Your task to perform on an android device: Go to display settings Image 0: 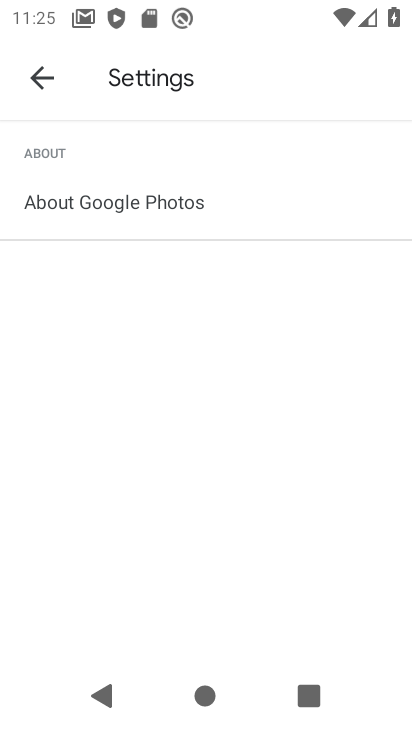
Step 0: press home button
Your task to perform on an android device: Go to display settings Image 1: 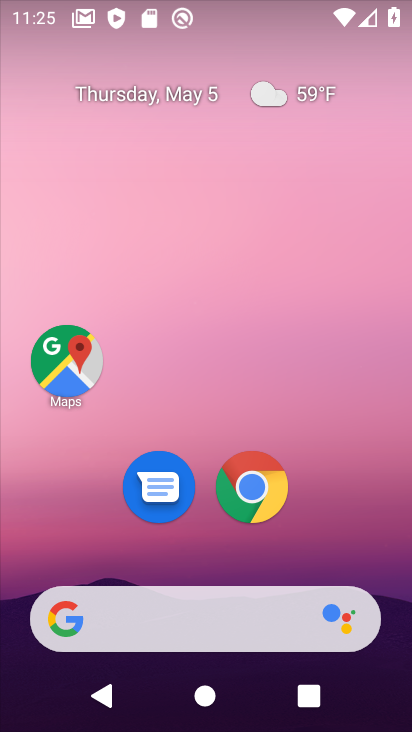
Step 1: drag from (281, 535) to (149, 130)
Your task to perform on an android device: Go to display settings Image 2: 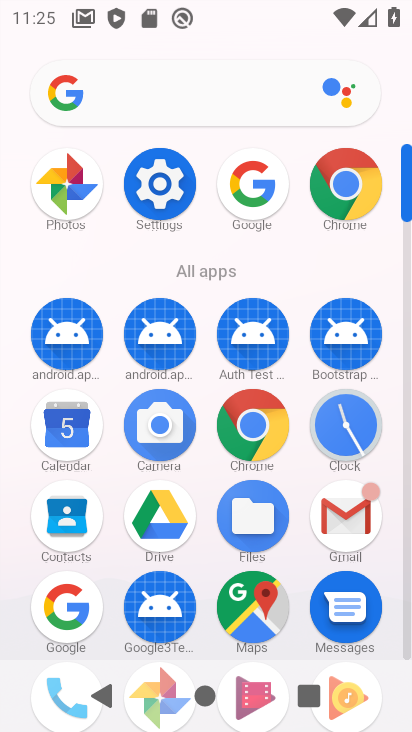
Step 2: click (158, 181)
Your task to perform on an android device: Go to display settings Image 3: 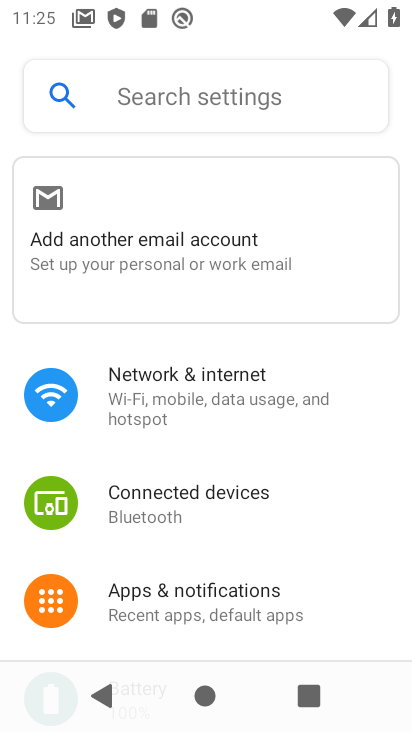
Step 3: drag from (319, 561) to (263, 174)
Your task to perform on an android device: Go to display settings Image 4: 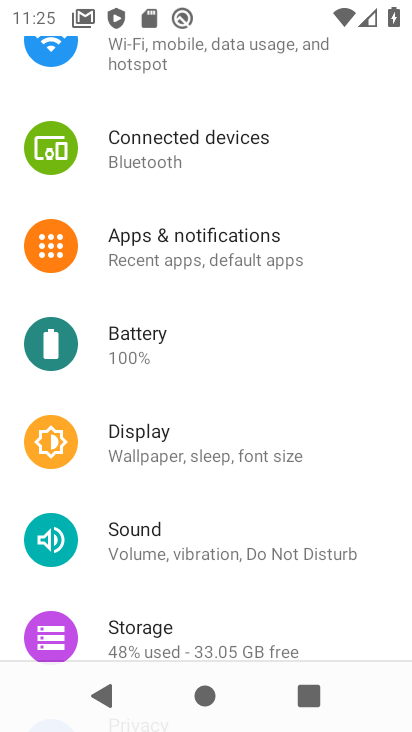
Step 4: click (153, 440)
Your task to perform on an android device: Go to display settings Image 5: 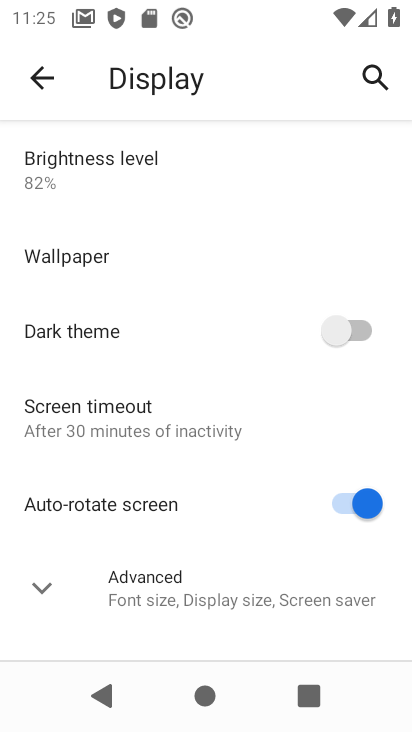
Step 5: click (142, 577)
Your task to perform on an android device: Go to display settings Image 6: 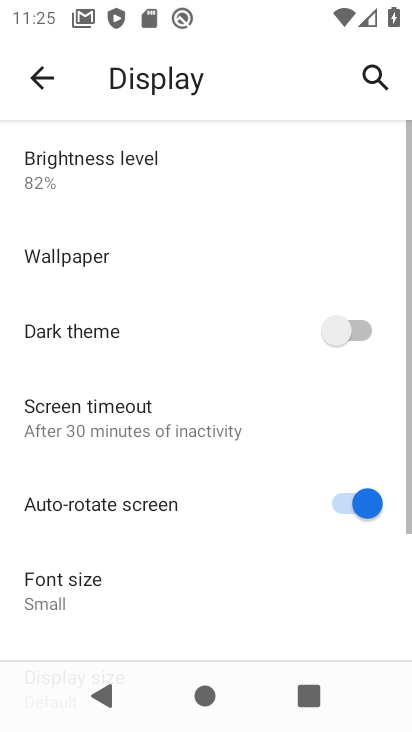
Step 6: task complete